Your task to perform on an android device: Go to network settings Image 0: 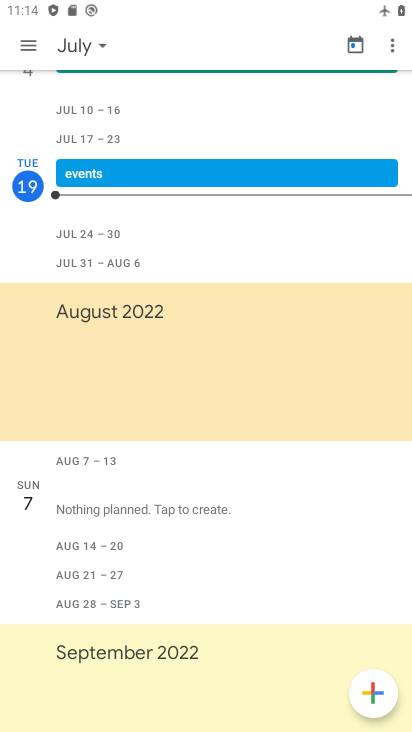
Step 0: press home button
Your task to perform on an android device: Go to network settings Image 1: 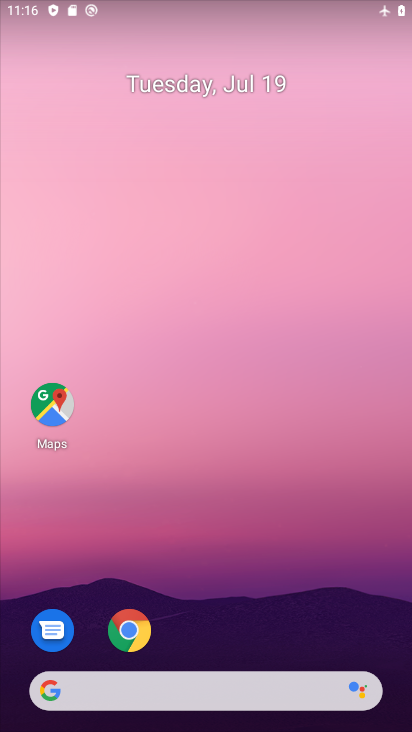
Step 1: drag from (235, 683) to (168, 142)
Your task to perform on an android device: Go to network settings Image 2: 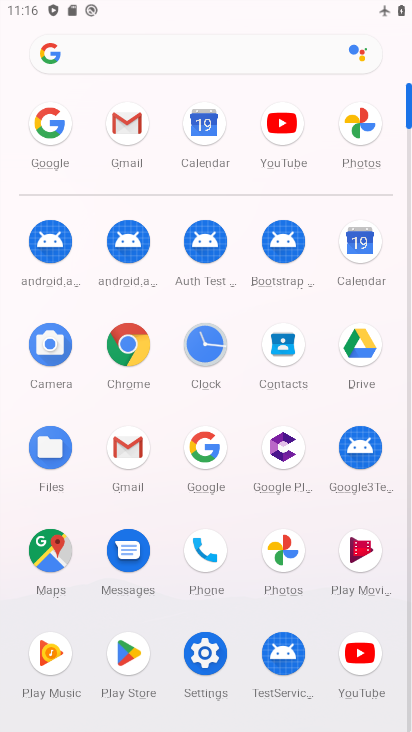
Step 2: click (195, 649)
Your task to perform on an android device: Go to network settings Image 3: 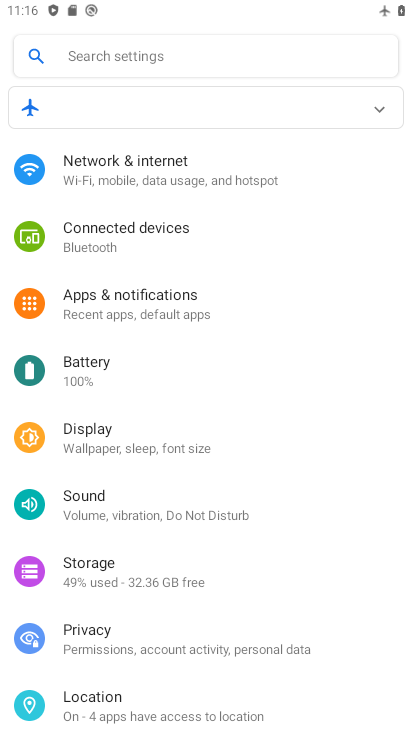
Step 3: click (172, 175)
Your task to perform on an android device: Go to network settings Image 4: 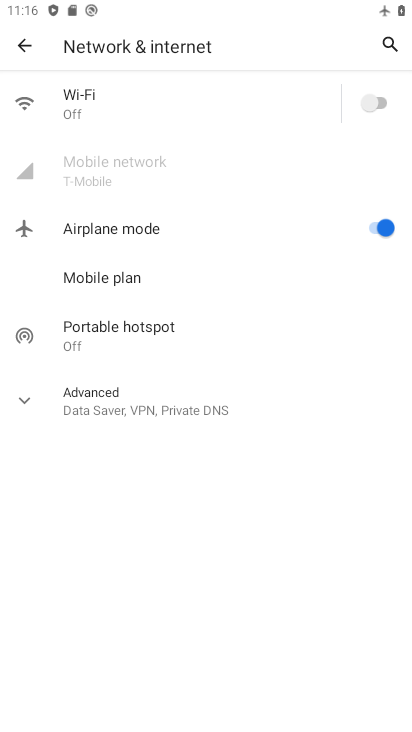
Step 4: click (66, 397)
Your task to perform on an android device: Go to network settings Image 5: 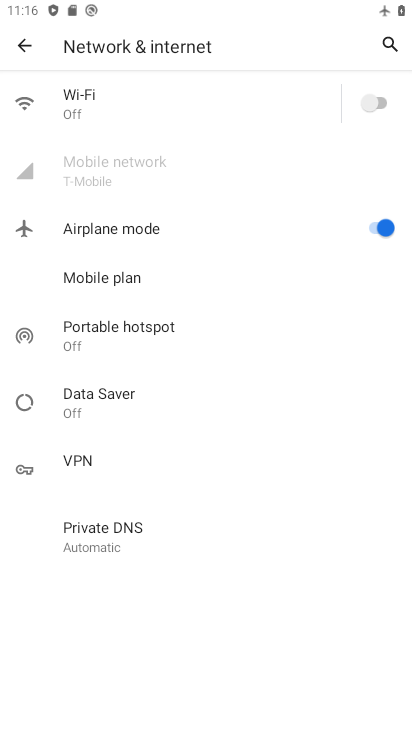
Step 5: task complete